Your task to perform on an android device: Show me the alarms in the clock app Image 0: 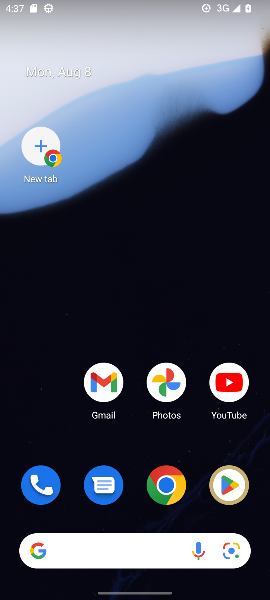
Step 0: press home button
Your task to perform on an android device: Show me the alarms in the clock app Image 1: 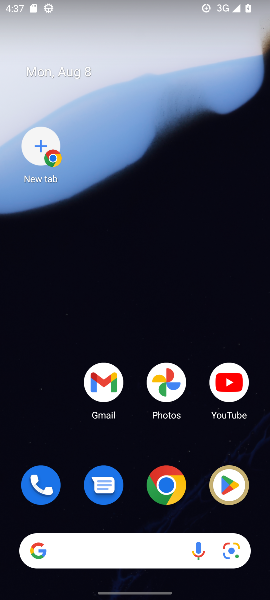
Step 1: click (162, 136)
Your task to perform on an android device: Show me the alarms in the clock app Image 2: 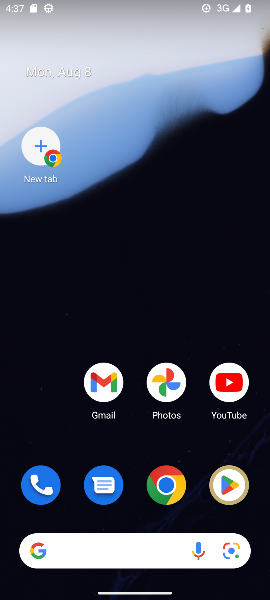
Step 2: drag from (136, 542) to (78, 88)
Your task to perform on an android device: Show me the alarms in the clock app Image 3: 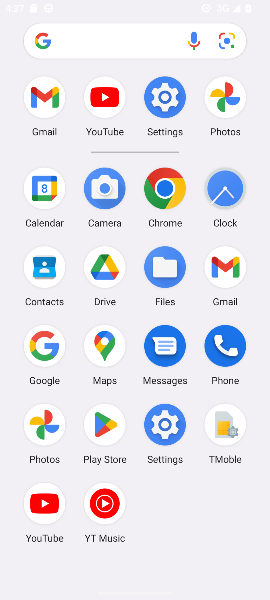
Step 3: drag from (91, 400) to (98, 185)
Your task to perform on an android device: Show me the alarms in the clock app Image 4: 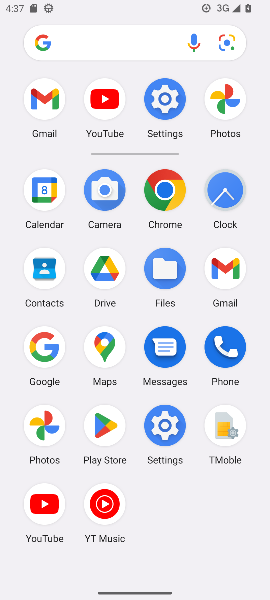
Step 4: click (233, 189)
Your task to perform on an android device: Show me the alarms in the clock app Image 5: 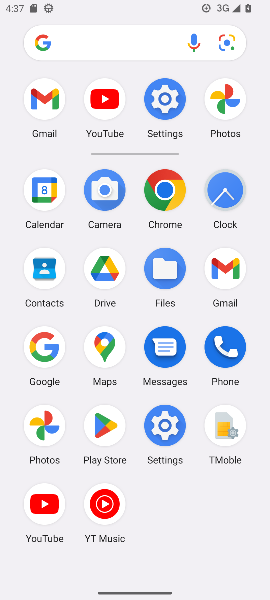
Step 5: click (234, 192)
Your task to perform on an android device: Show me the alarms in the clock app Image 6: 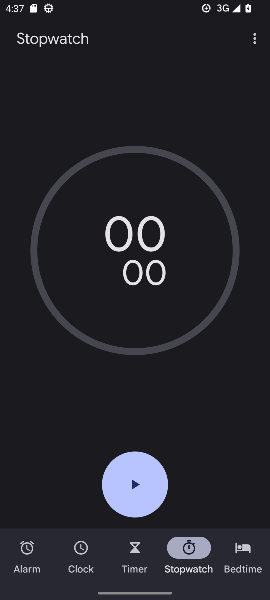
Step 6: click (219, 194)
Your task to perform on an android device: Show me the alarms in the clock app Image 7: 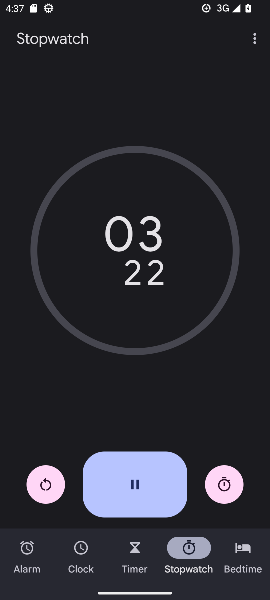
Step 7: click (126, 485)
Your task to perform on an android device: Show me the alarms in the clock app Image 8: 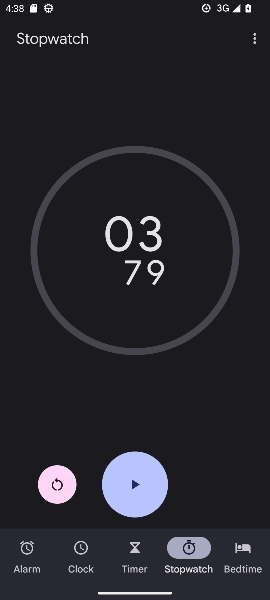
Step 8: click (29, 555)
Your task to perform on an android device: Show me the alarms in the clock app Image 9: 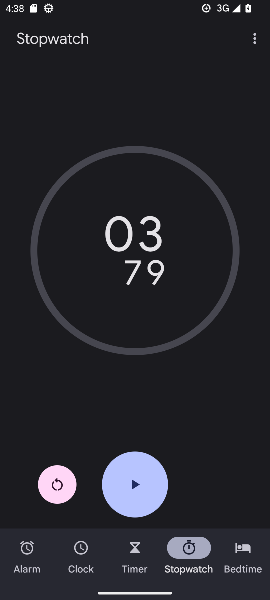
Step 9: click (31, 554)
Your task to perform on an android device: Show me the alarms in the clock app Image 10: 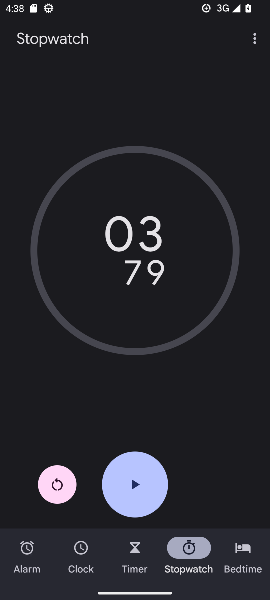
Step 10: click (31, 554)
Your task to perform on an android device: Show me the alarms in the clock app Image 11: 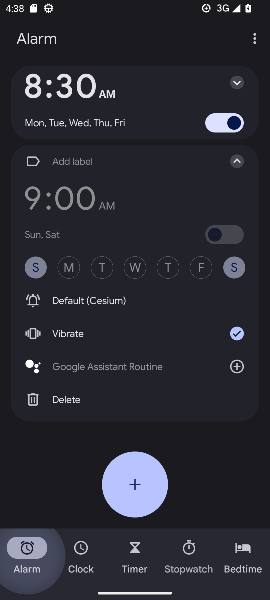
Step 11: click (31, 554)
Your task to perform on an android device: Show me the alarms in the clock app Image 12: 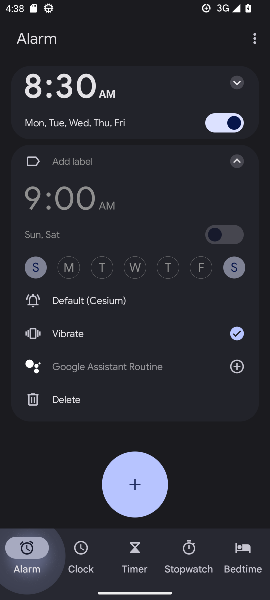
Step 12: click (31, 554)
Your task to perform on an android device: Show me the alarms in the clock app Image 13: 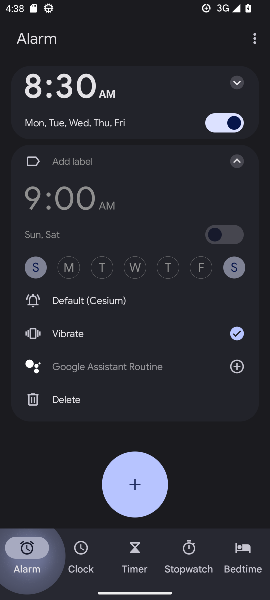
Step 13: click (31, 554)
Your task to perform on an android device: Show me the alarms in the clock app Image 14: 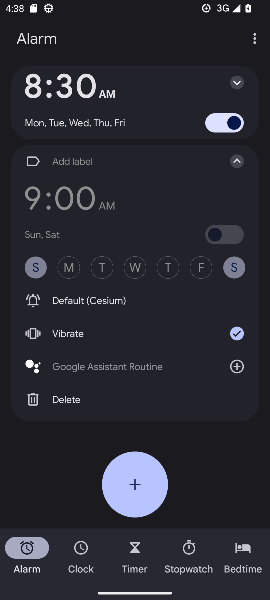
Step 14: task complete